Your task to perform on an android device: Open notification settings Image 0: 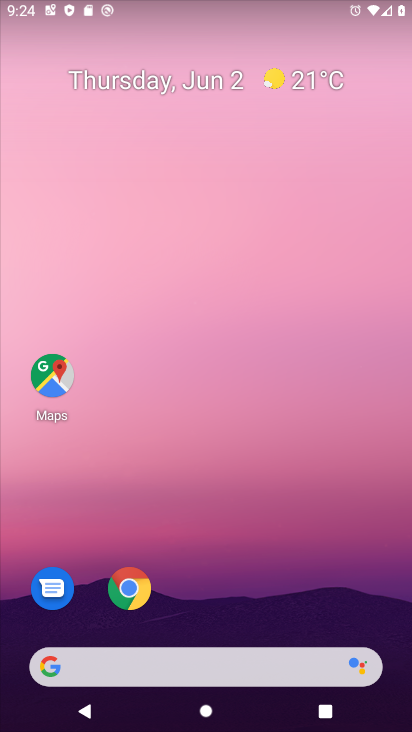
Step 0: drag from (163, 583) to (180, 10)
Your task to perform on an android device: Open notification settings Image 1: 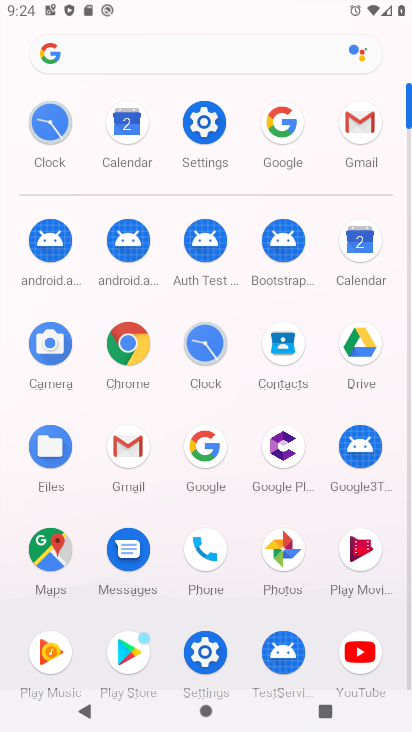
Step 1: click (211, 154)
Your task to perform on an android device: Open notification settings Image 2: 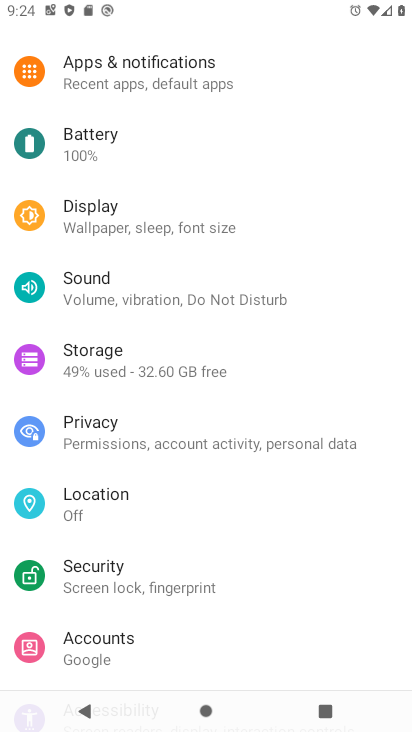
Step 2: click (159, 66)
Your task to perform on an android device: Open notification settings Image 3: 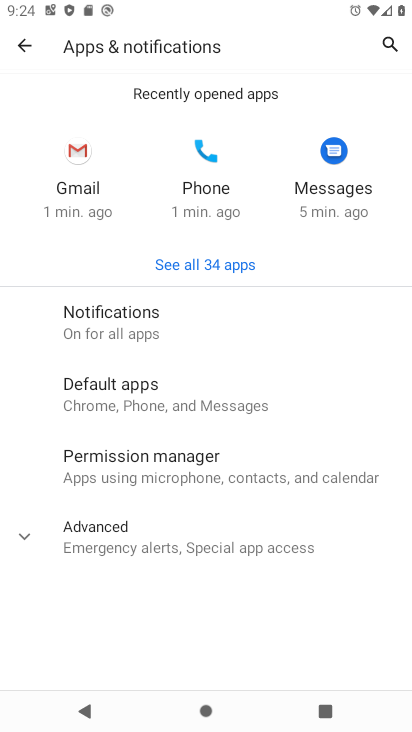
Step 3: task complete